Your task to perform on an android device: Open Android settings Image 0: 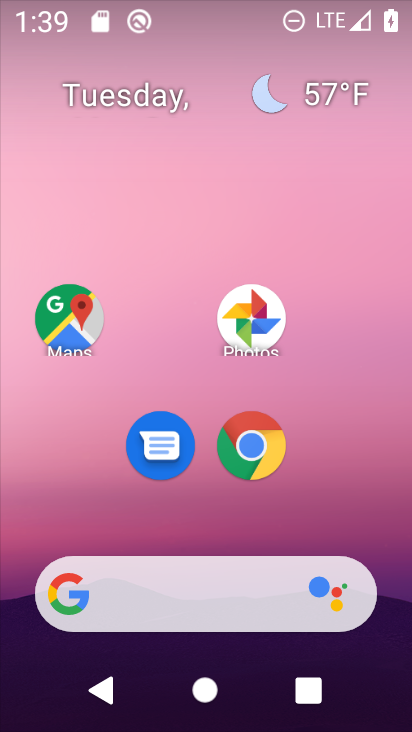
Step 0: drag from (383, 474) to (403, 328)
Your task to perform on an android device: Open Android settings Image 1: 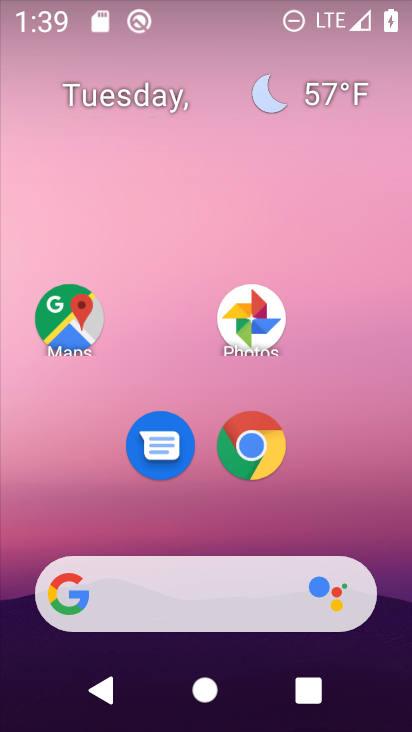
Step 1: drag from (358, 416) to (405, 60)
Your task to perform on an android device: Open Android settings Image 2: 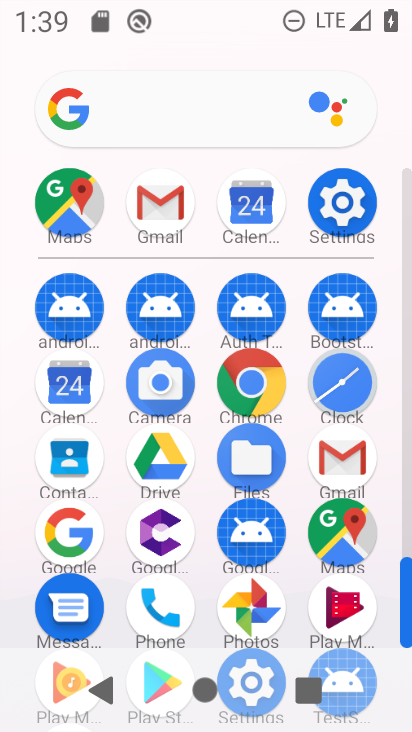
Step 2: click (350, 214)
Your task to perform on an android device: Open Android settings Image 3: 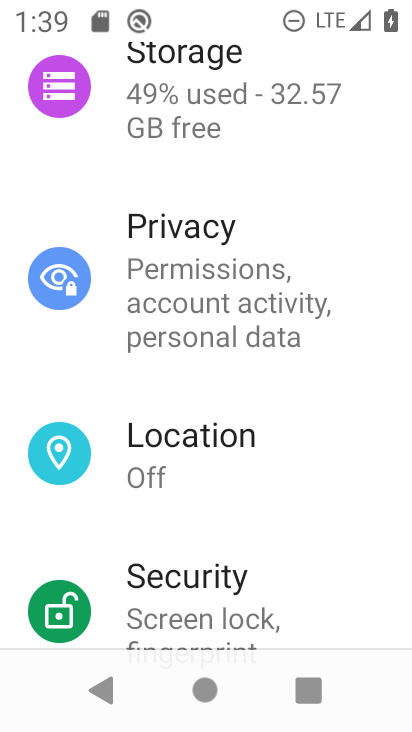
Step 3: drag from (371, 259) to (367, 361)
Your task to perform on an android device: Open Android settings Image 4: 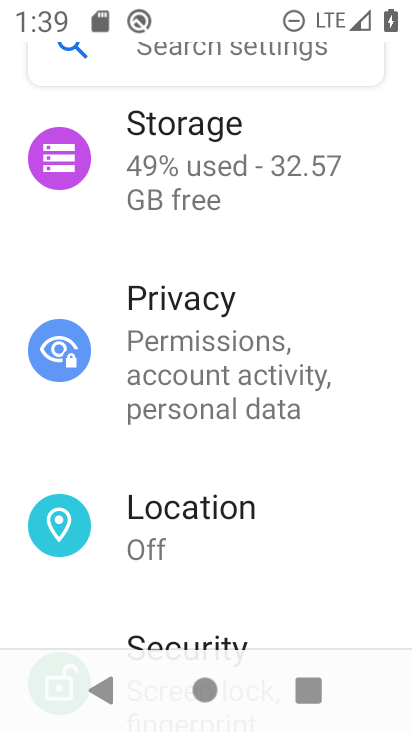
Step 4: drag from (372, 223) to (364, 320)
Your task to perform on an android device: Open Android settings Image 5: 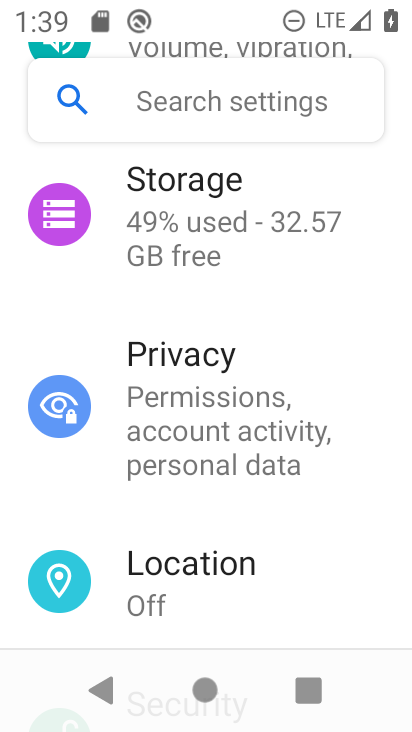
Step 5: drag from (364, 211) to (363, 330)
Your task to perform on an android device: Open Android settings Image 6: 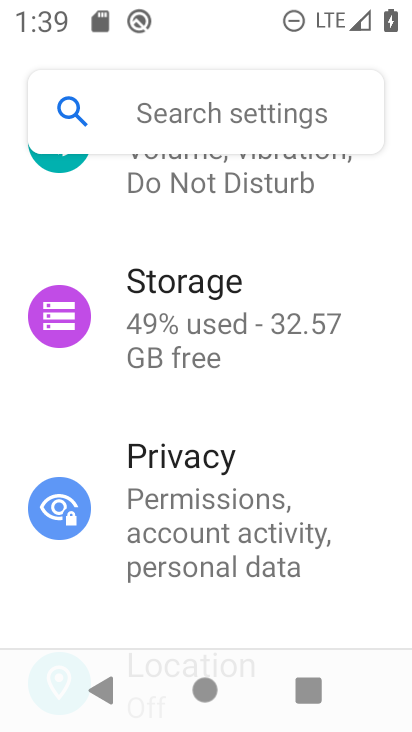
Step 6: drag from (358, 214) to (387, 345)
Your task to perform on an android device: Open Android settings Image 7: 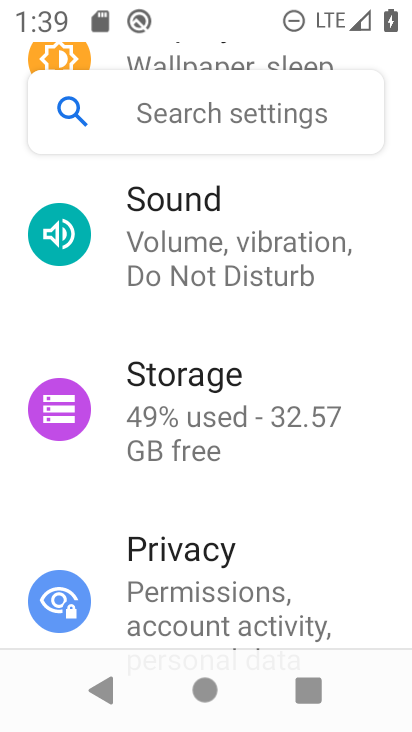
Step 7: drag from (370, 239) to (384, 364)
Your task to perform on an android device: Open Android settings Image 8: 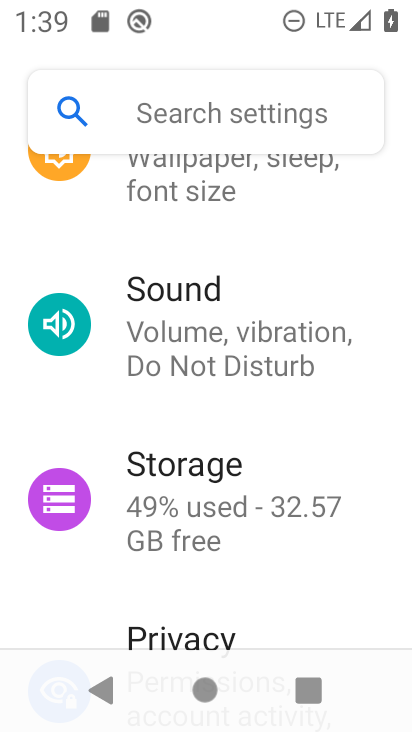
Step 8: drag from (349, 249) to (356, 343)
Your task to perform on an android device: Open Android settings Image 9: 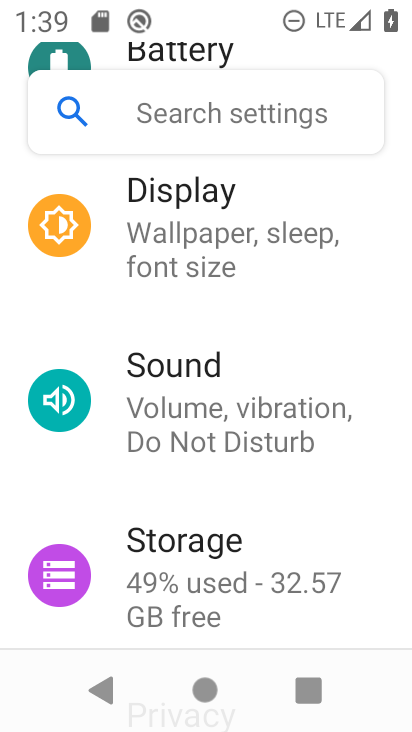
Step 9: drag from (363, 220) to (374, 313)
Your task to perform on an android device: Open Android settings Image 10: 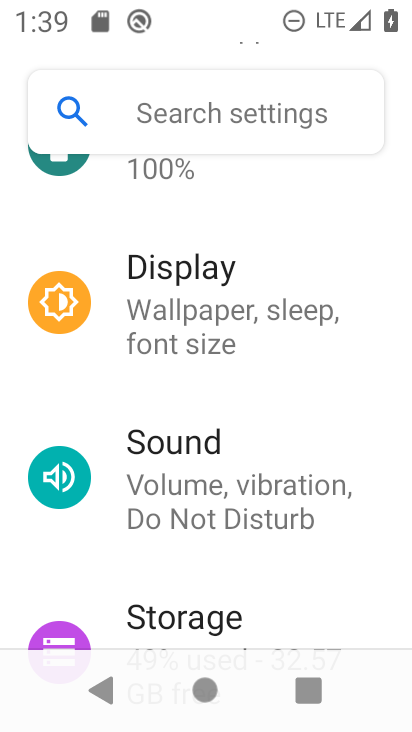
Step 10: drag from (370, 222) to (376, 292)
Your task to perform on an android device: Open Android settings Image 11: 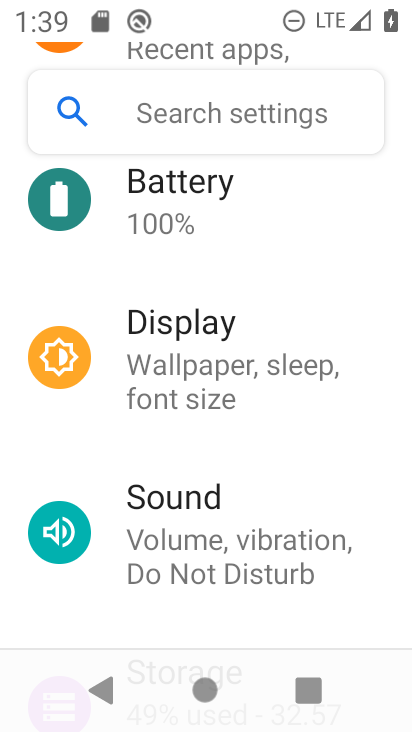
Step 11: drag from (374, 176) to (371, 286)
Your task to perform on an android device: Open Android settings Image 12: 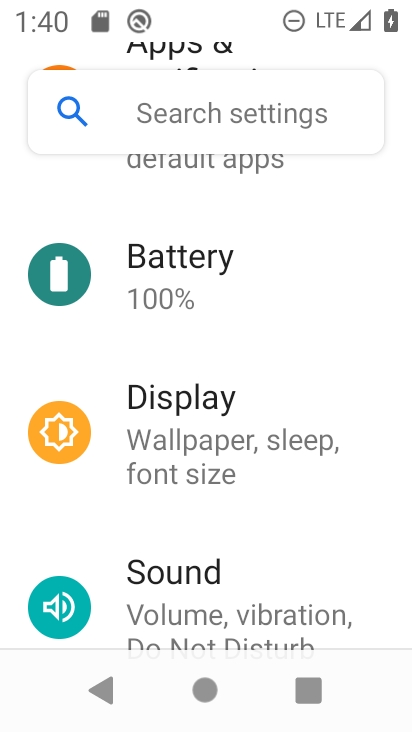
Step 12: drag from (353, 203) to (349, 317)
Your task to perform on an android device: Open Android settings Image 13: 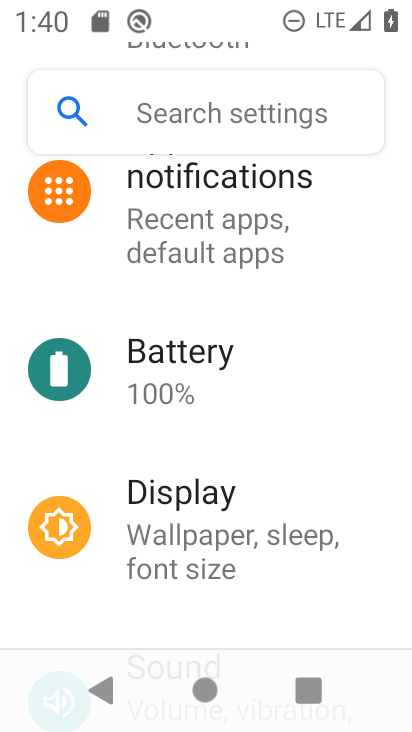
Step 13: drag from (323, 410) to (339, 265)
Your task to perform on an android device: Open Android settings Image 14: 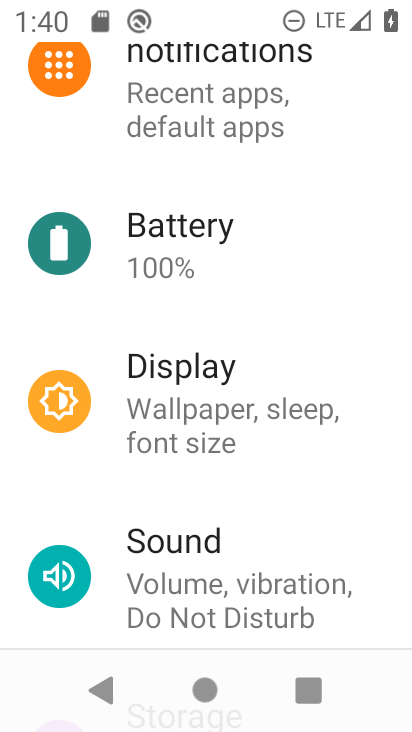
Step 14: drag from (367, 337) to (378, 238)
Your task to perform on an android device: Open Android settings Image 15: 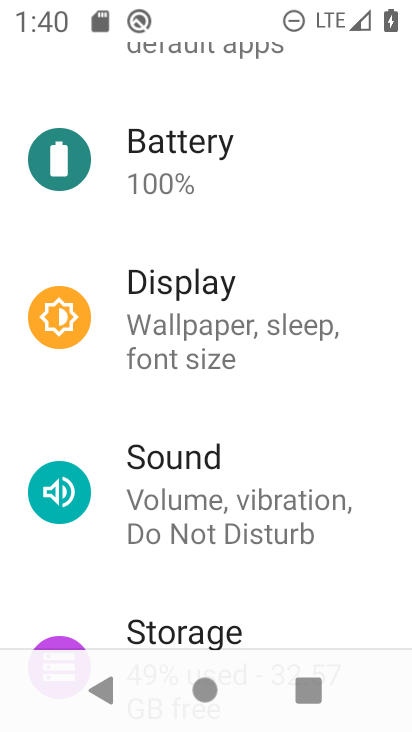
Step 15: drag from (382, 387) to (359, 267)
Your task to perform on an android device: Open Android settings Image 16: 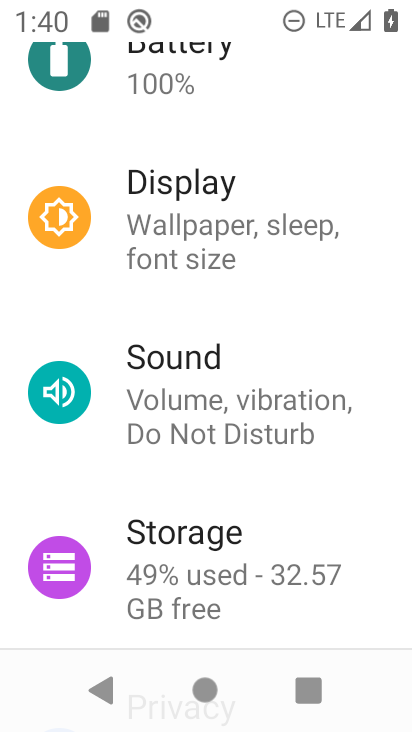
Step 16: drag from (354, 378) to (367, 263)
Your task to perform on an android device: Open Android settings Image 17: 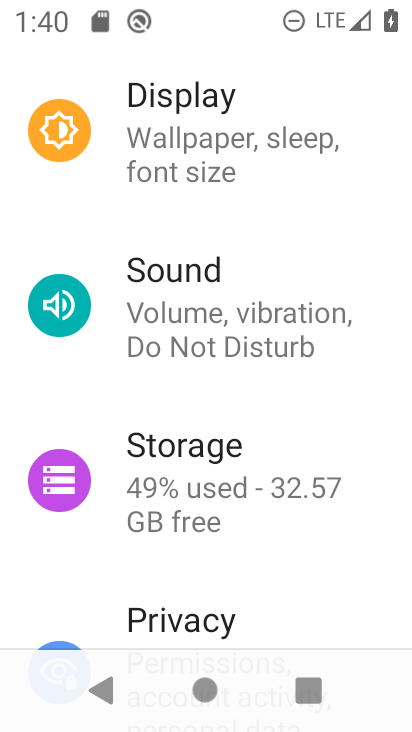
Step 17: drag from (373, 423) to (390, 327)
Your task to perform on an android device: Open Android settings Image 18: 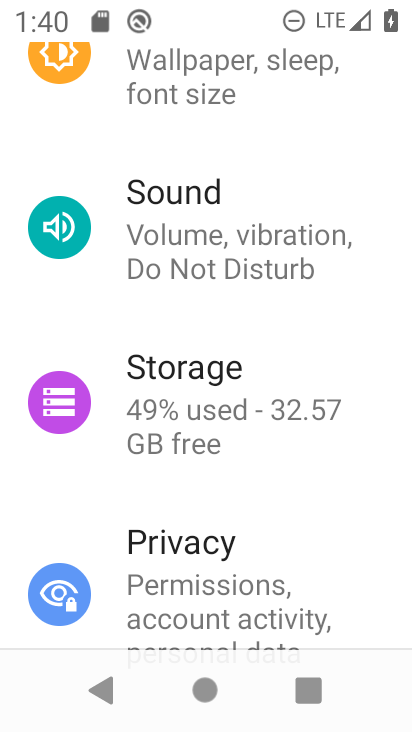
Step 18: drag from (366, 452) to (359, 309)
Your task to perform on an android device: Open Android settings Image 19: 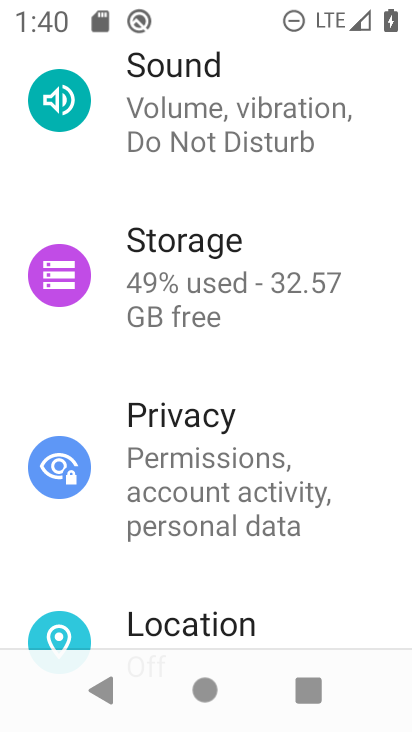
Step 19: drag from (376, 487) to (353, 340)
Your task to perform on an android device: Open Android settings Image 20: 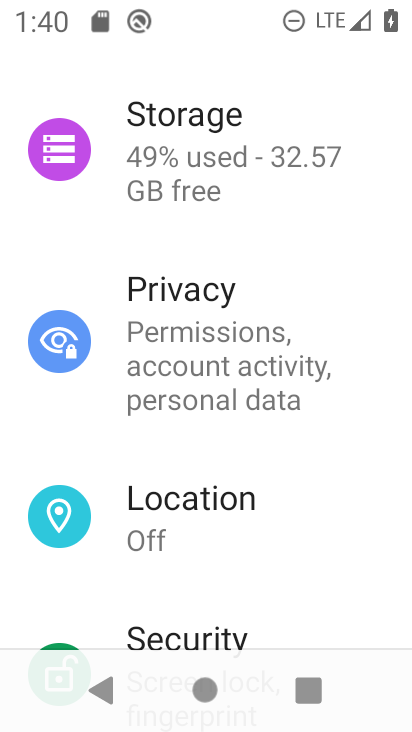
Step 20: drag from (360, 483) to (347, 331)
Your task to perform on an android device: Open Android settings Image 21: 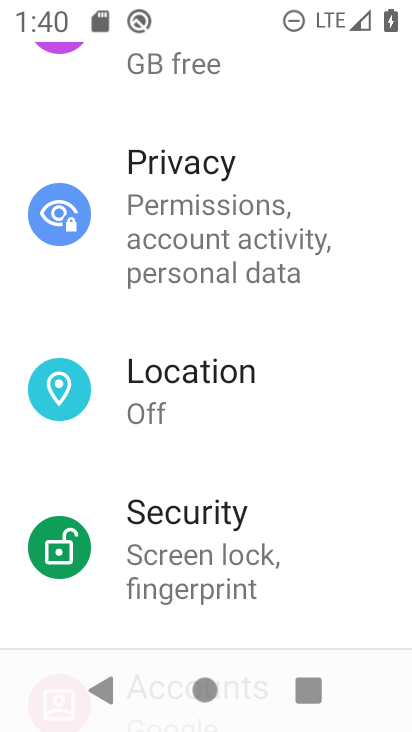
Step 21: drag from (360, 575) to (335, 401)
Your task to perform on an android device: Open Android settings Image 22: 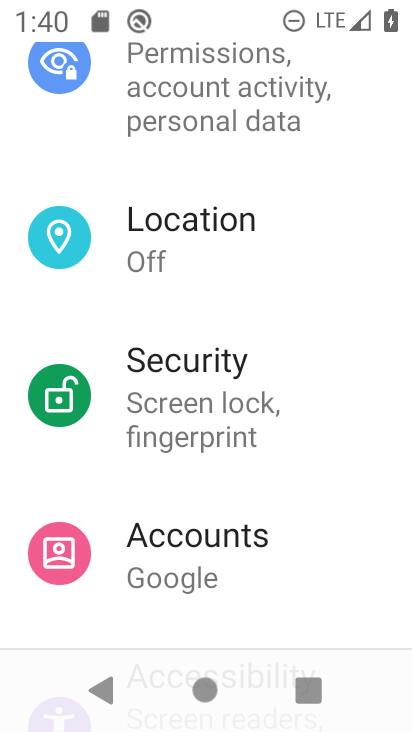
Step 22: drag from (356, 578) to (328, 437)
Your task to perform on an android device: Open Android settings Image 23: 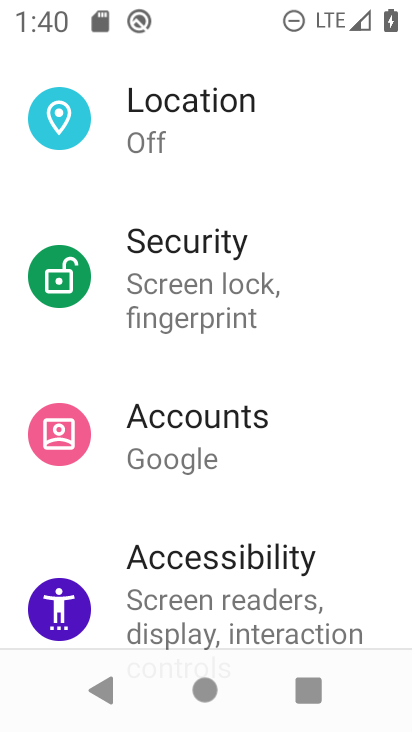
Step 23: drag from (353, 599) to (340, 469)
Your task to perform on an android device: Open Android settings Image 24: 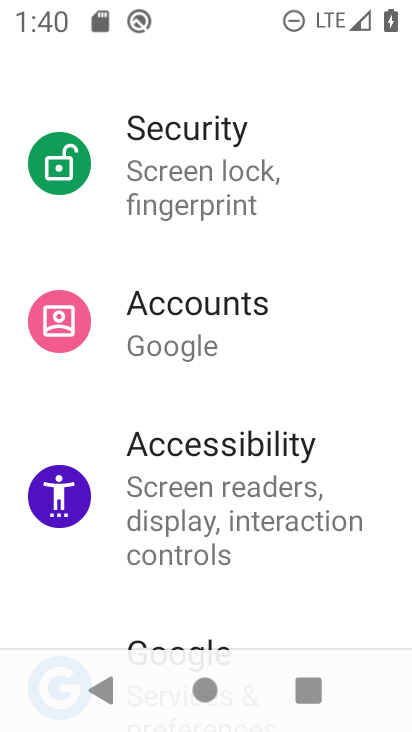
Step 24: drag from (360, 570) to (359, 477)
Your task to perform on an android device: Open Android settings Image 25: 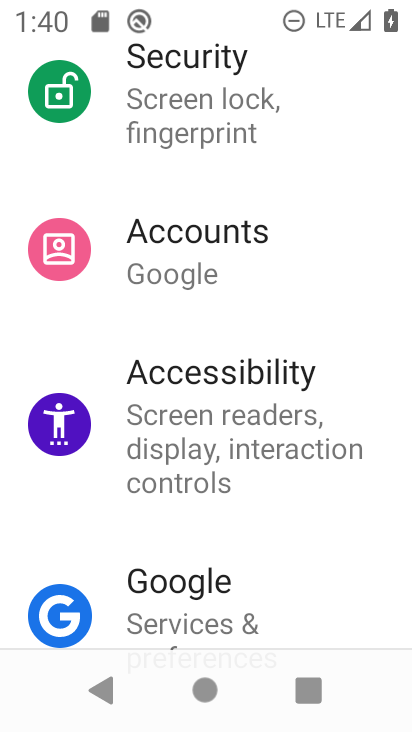
Step 25: drag from (345, 605) to (323, 479)
Your task to perform on an android device: Open Android settings Image 26: 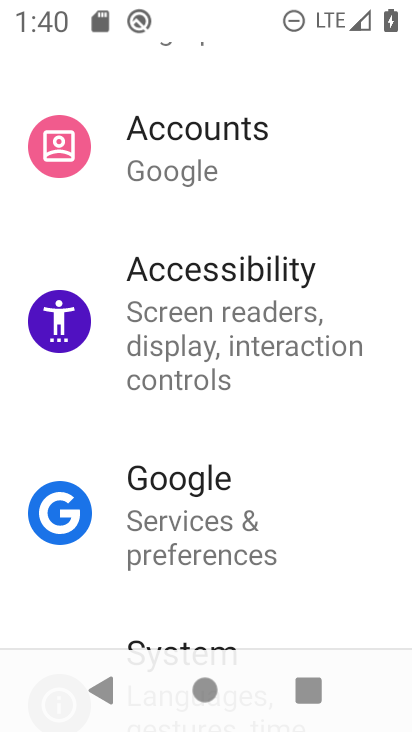
Step 26: drag from (321, 578) to (309, 466)
Your task to perform on an android device: Open Android settings Image 27: 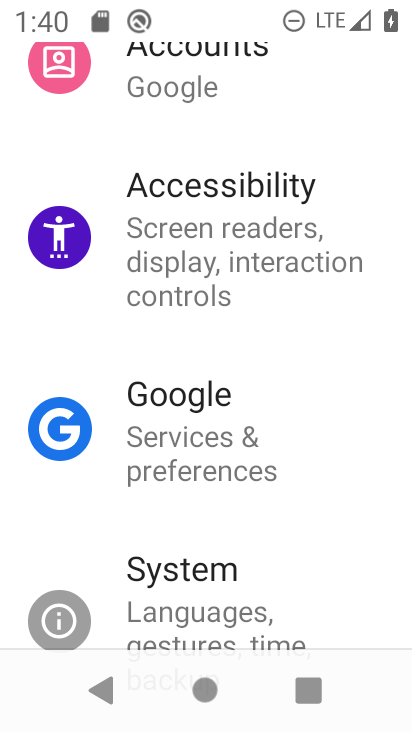
Step 27: drag from (338, 578) to (313, 478)
Your task to perform on an android device: Open Android settings Image 28: 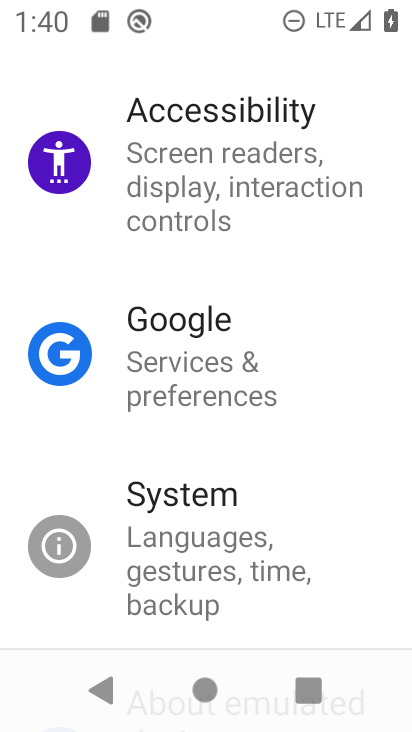
Step 28: click (305, 570)
Your task to perform on an android device: Open Android settings Image 29: 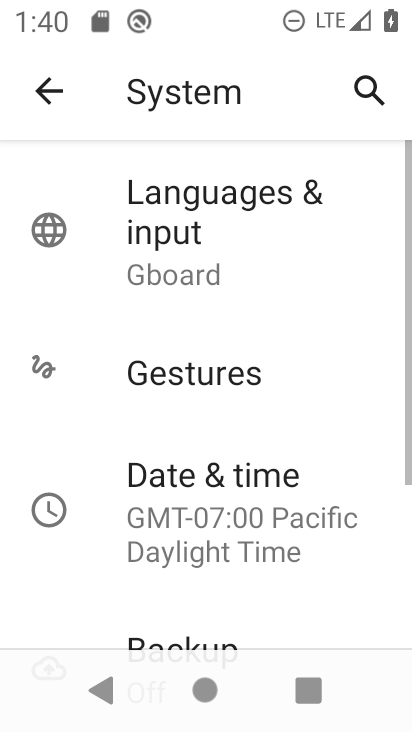
Step 29: drag from (306, 559) to (325, 481)
Your task to perform on an android device: Open Android settings Image 30: 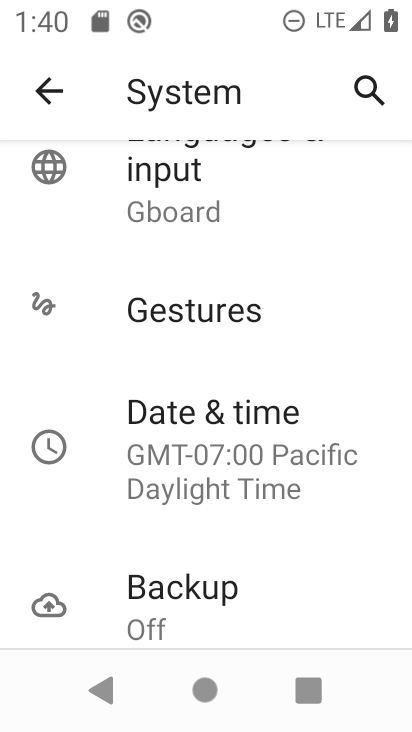
Step 30: drag from (352, 590) to (343, 486)
Your task to perform on an android device: Open Android settings Image 31: 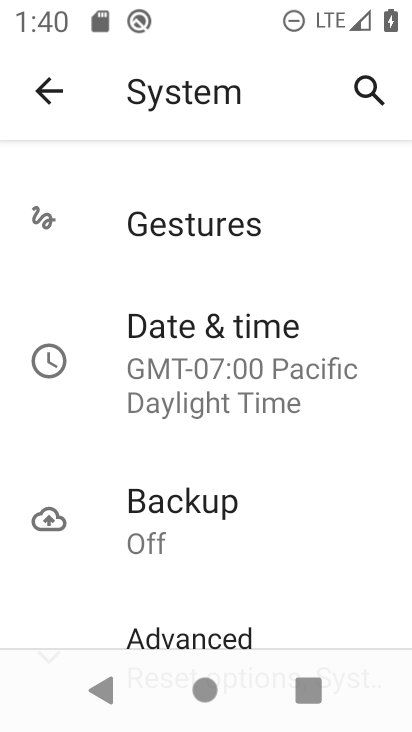
Step 31: drag from (323, 628) to (312, 491)
Your task to perform on an android device: Open Android settings Image 32: 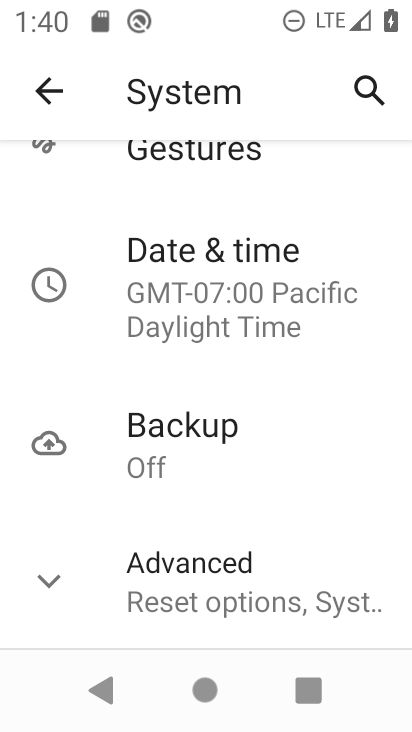
Step 32: click (299, 603)
Your task to perform on an android device: Open Android settings Image 33: 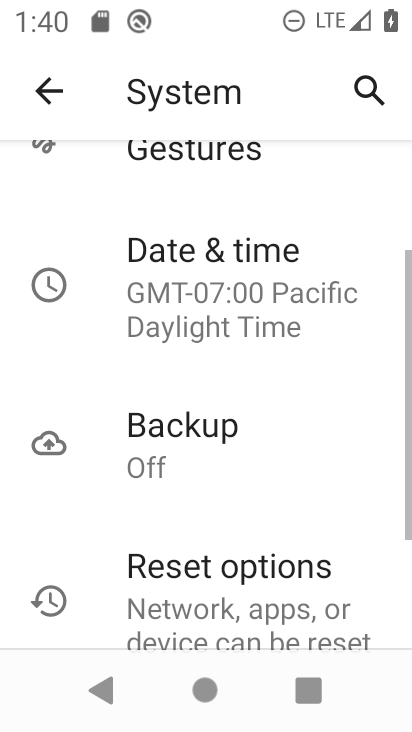
Step 33: task complete